Your task to perform on an android device: toggle sleep mode Image 0: 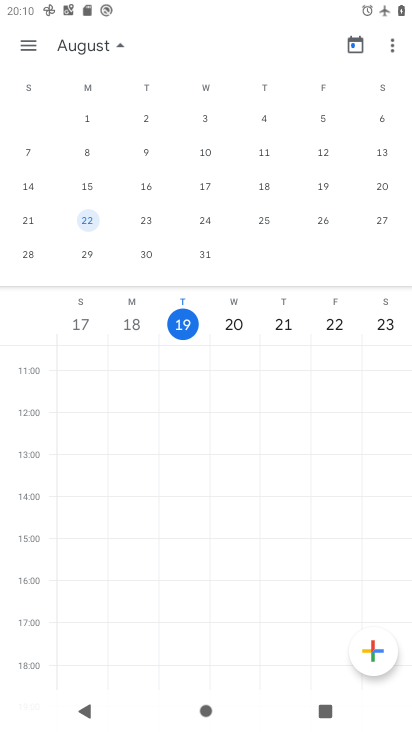
Step 0: press home button
Your task to perform on an android device: toggle sleep mode Image 1: 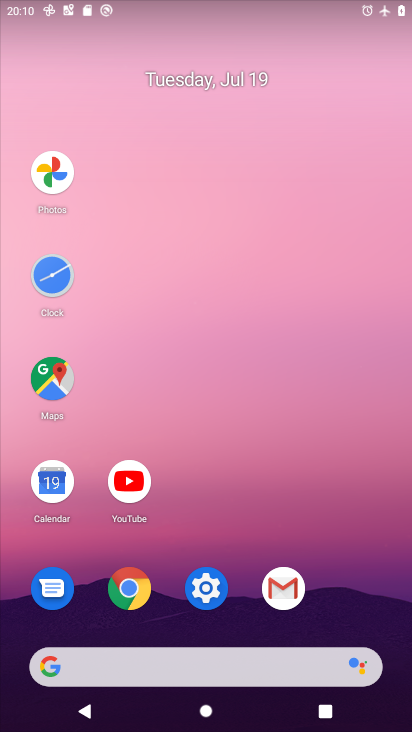
Step 1: click (211, 580)
Your task to perform on an android device: toggle sleep mode Image 2: 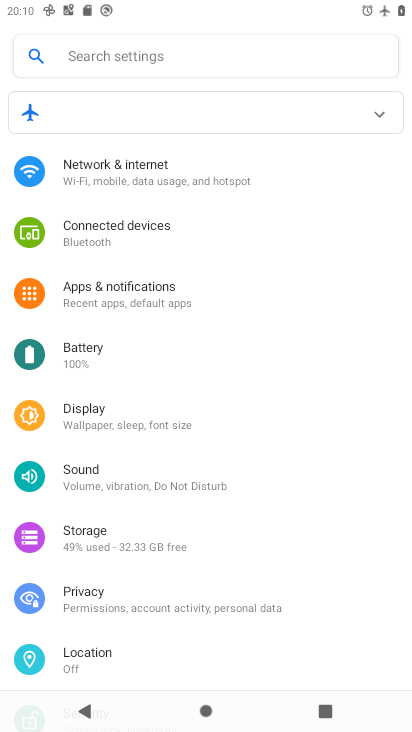
Step 2: click (116, 414)
Your task to perform on an android device: toggle sleep mode Image 3: 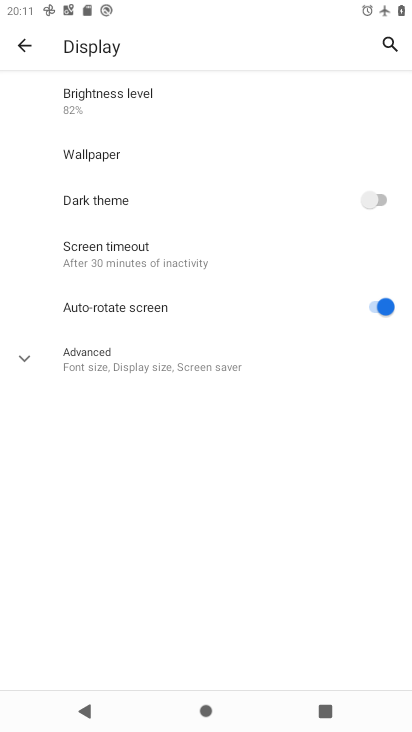
Step 3: task complete